Your task to perform on an android device: snooze an email in the gmail app Image 0: 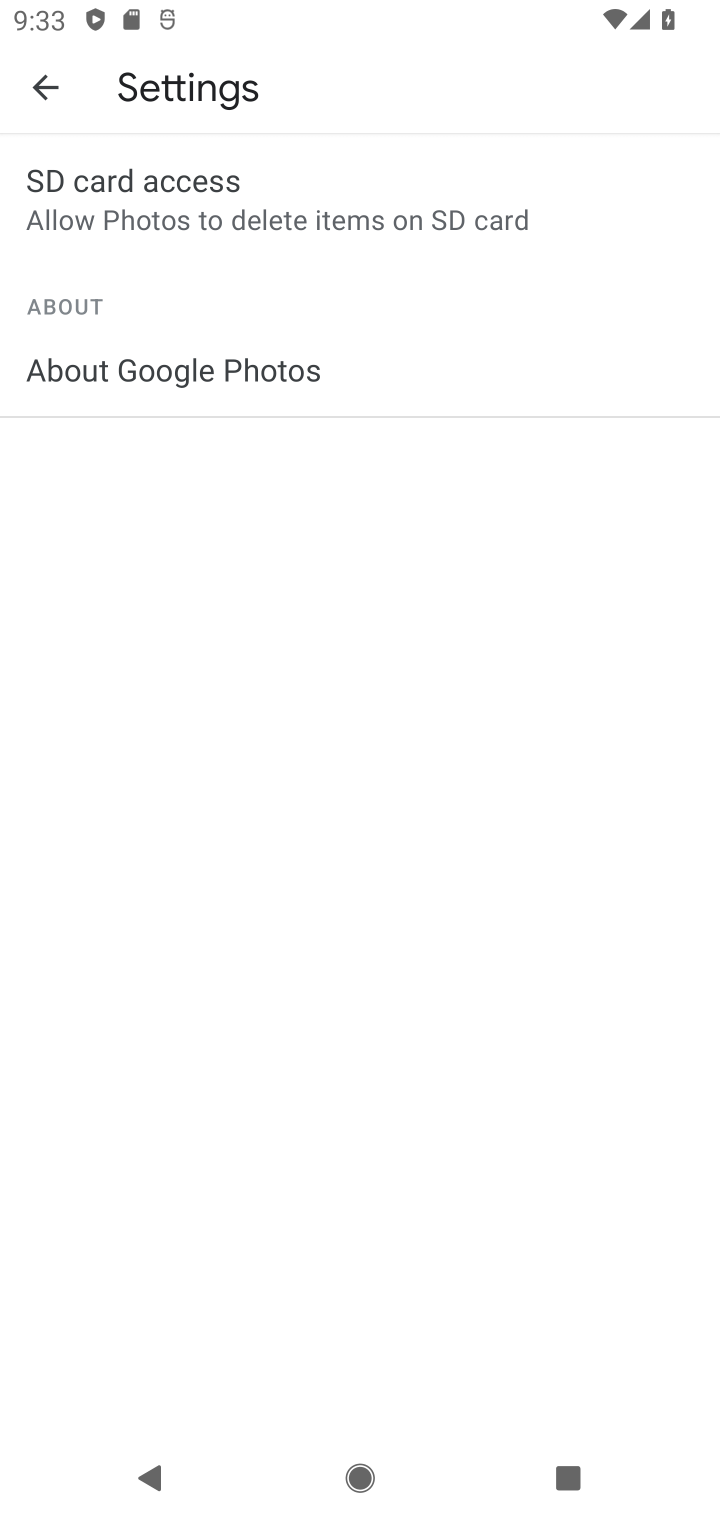
Step 0: press home button
Your task to perform on an android device: snooze an email in the gmail app Image 1: 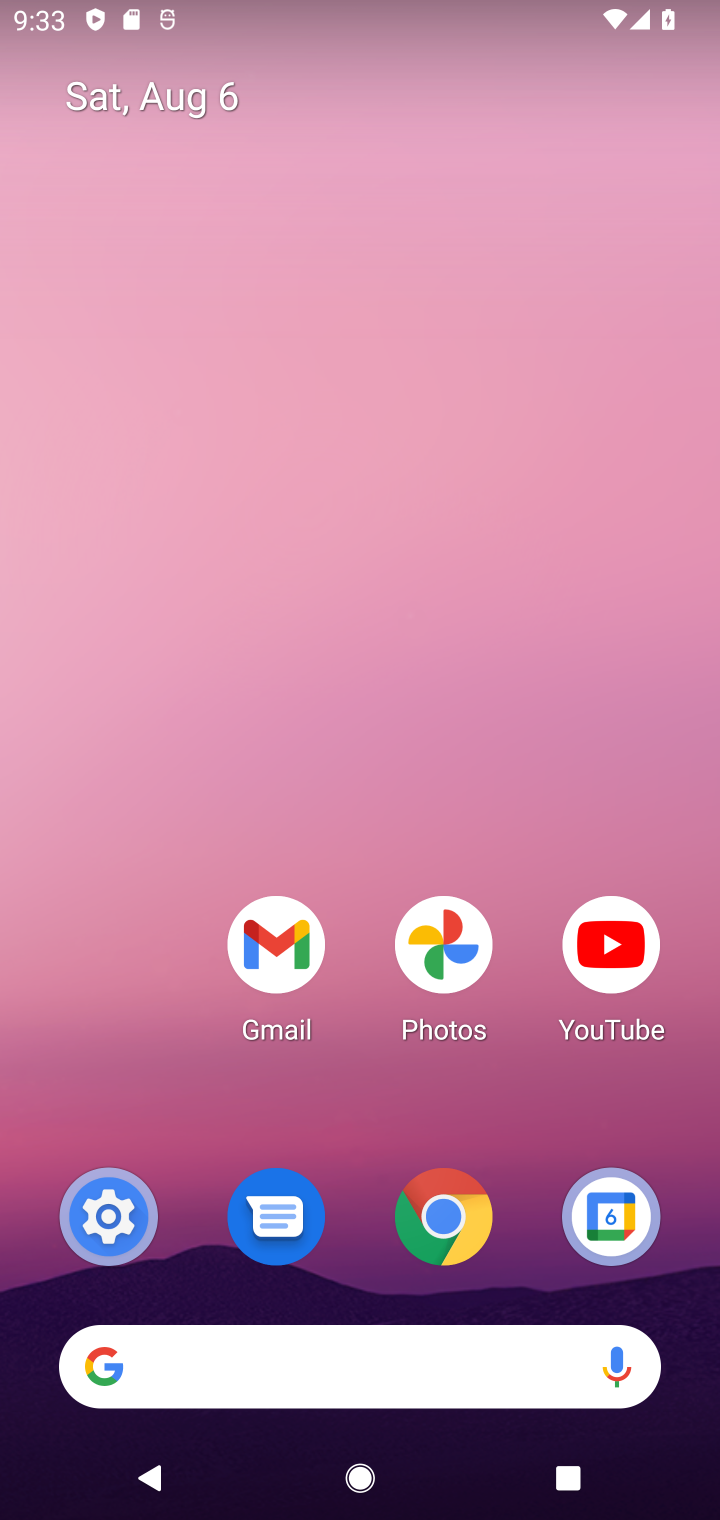
Step 1: click (409, 112)
Your task to perform on an android device: snooze an email in the gmail app Image 2: 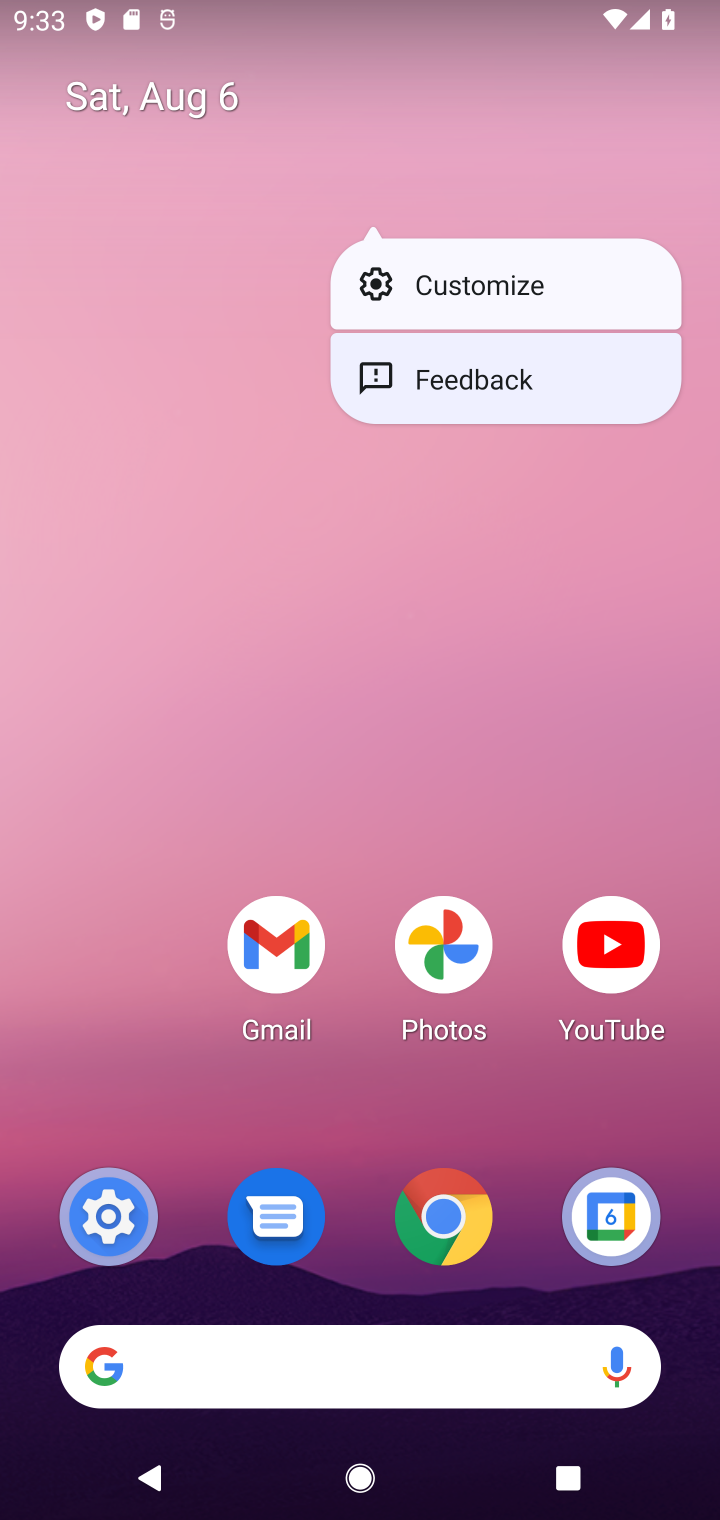
Step 2: drag from (293, 1240) to (300, 301)
Your task to perform on an android device: snooze an email in the gmail app Image 3: 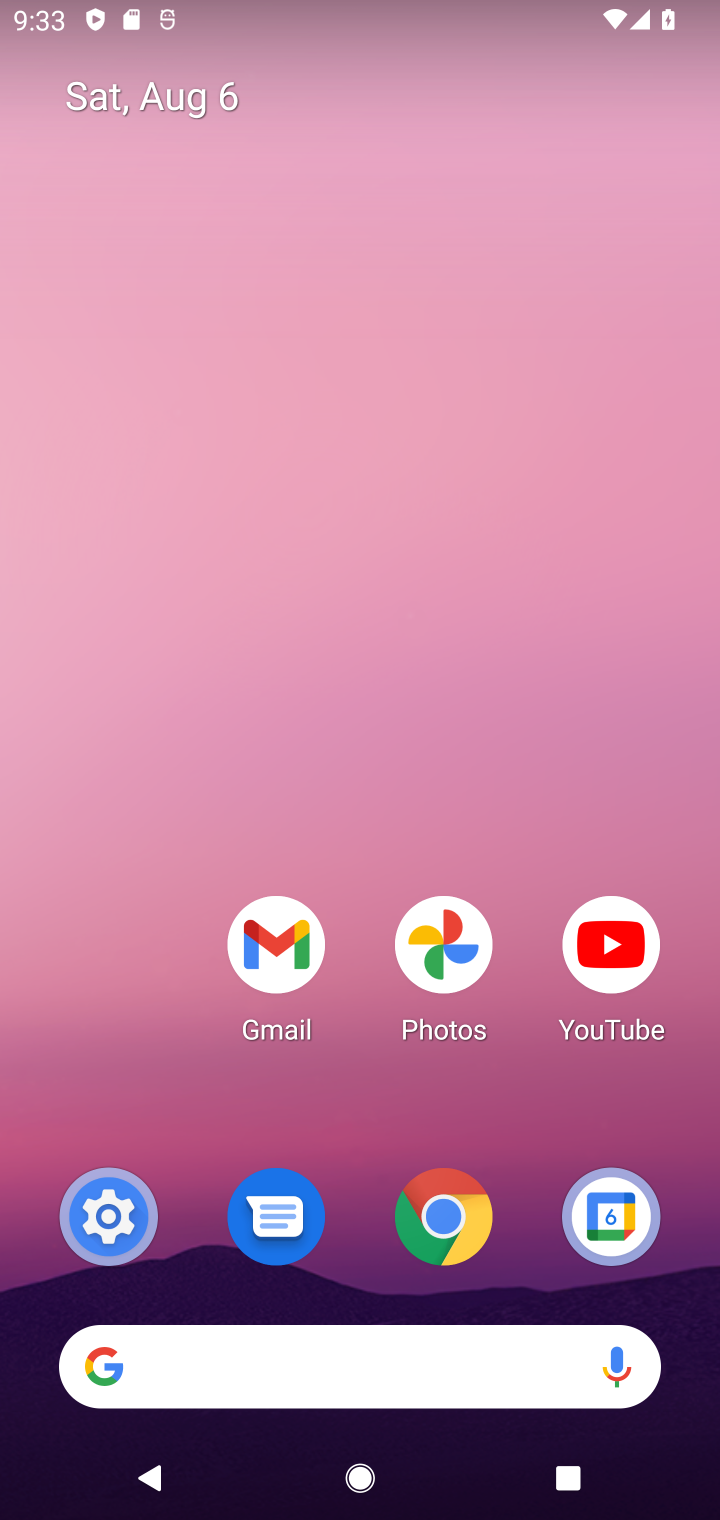
Step 3: drag from (400, 1114) to (340, 425)
Your task to perform on an android device: snooze an email in the gmail app Image 4: 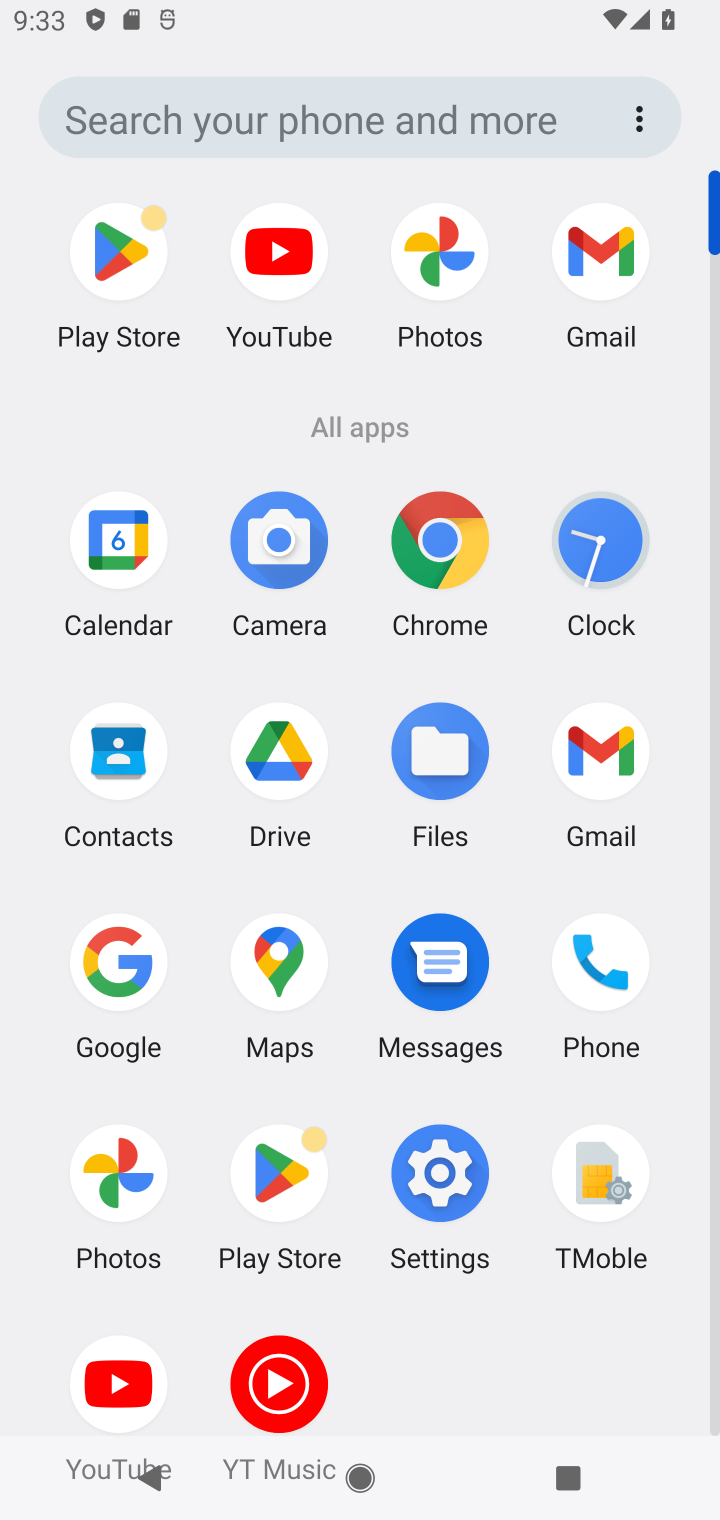
Step 4: click (583, 746)
Your task to perform on an android device: snooze an email in the gmail app Image 5: 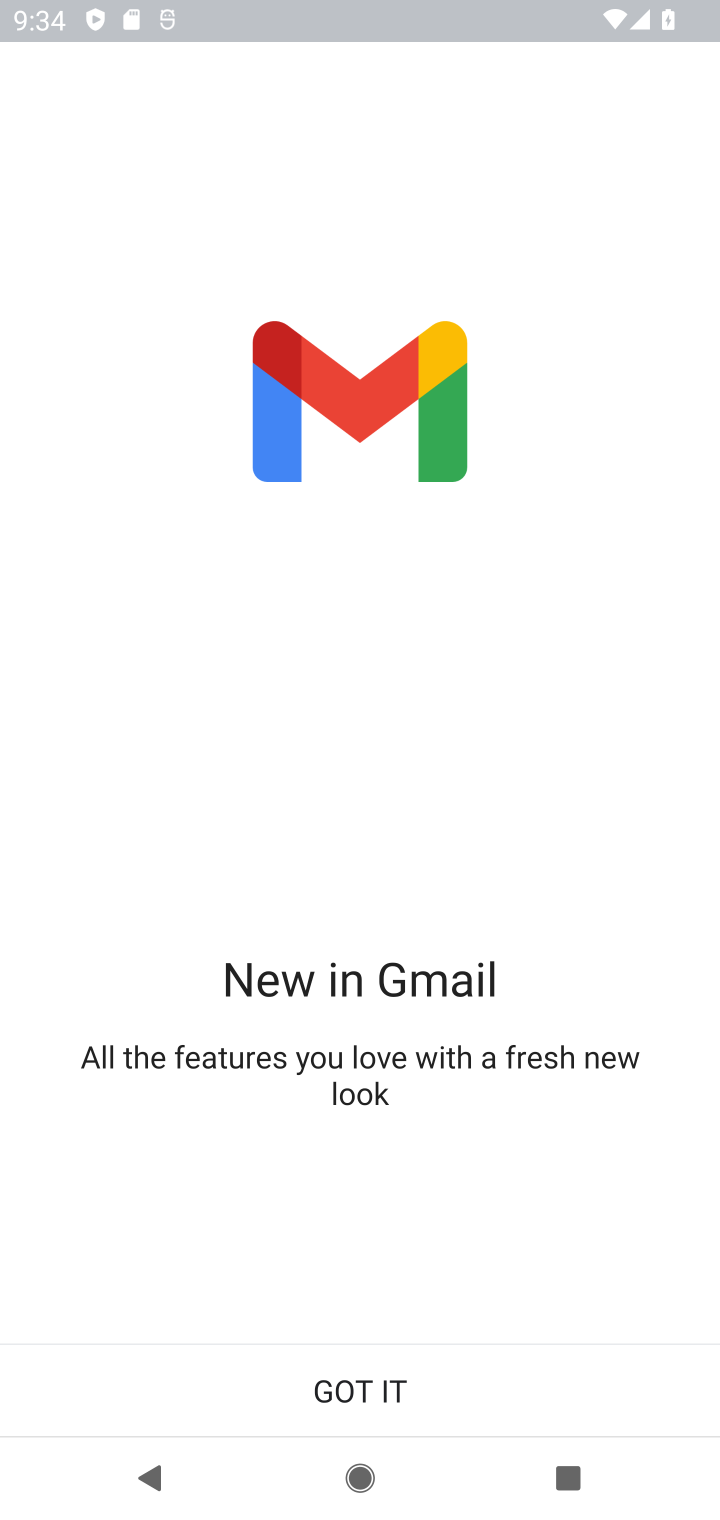
Step 5: click (350, 1384)
Your task to perform on an android device: snooze an email in the gmail app Image 6: 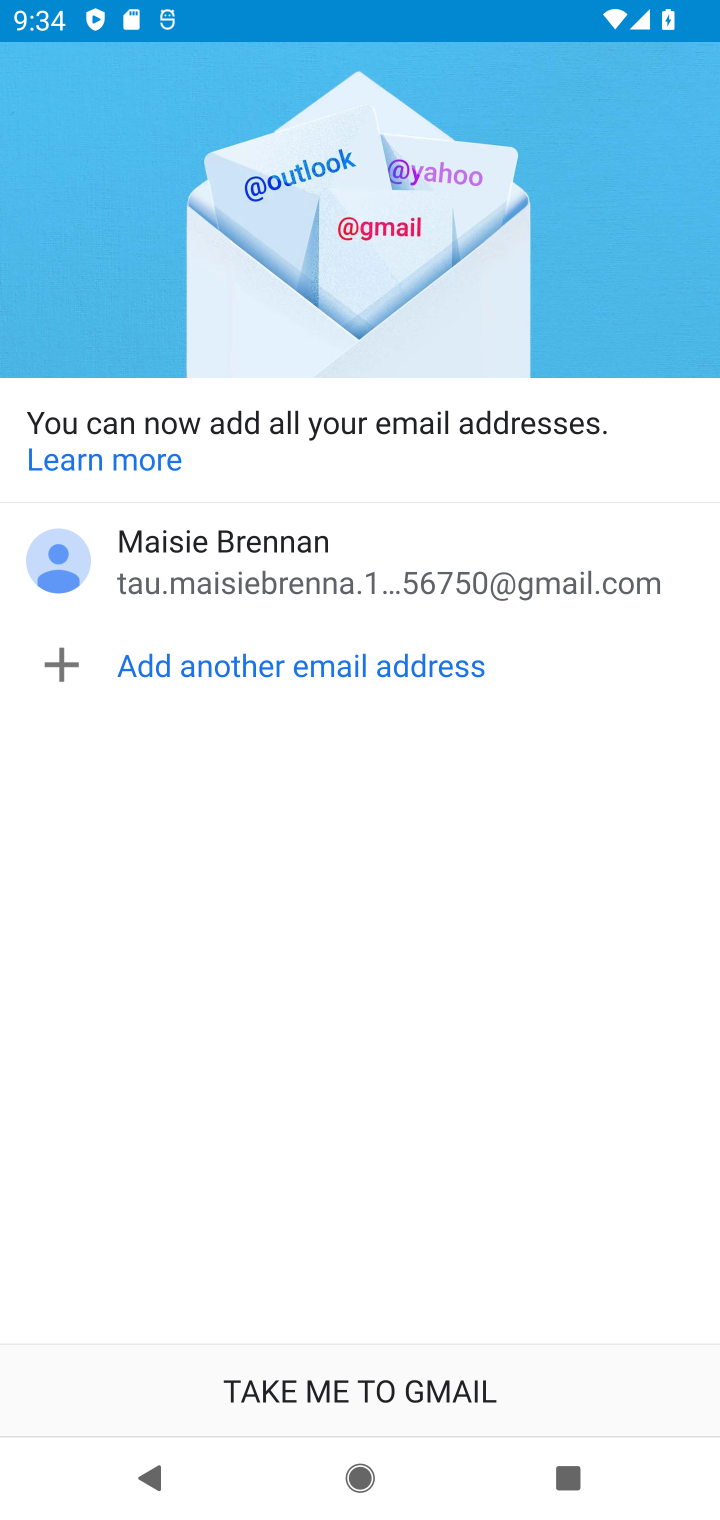
Step 6: click (350, 1384)
Your task to perform on an android device: snooze an email in the gmail app Image 7: 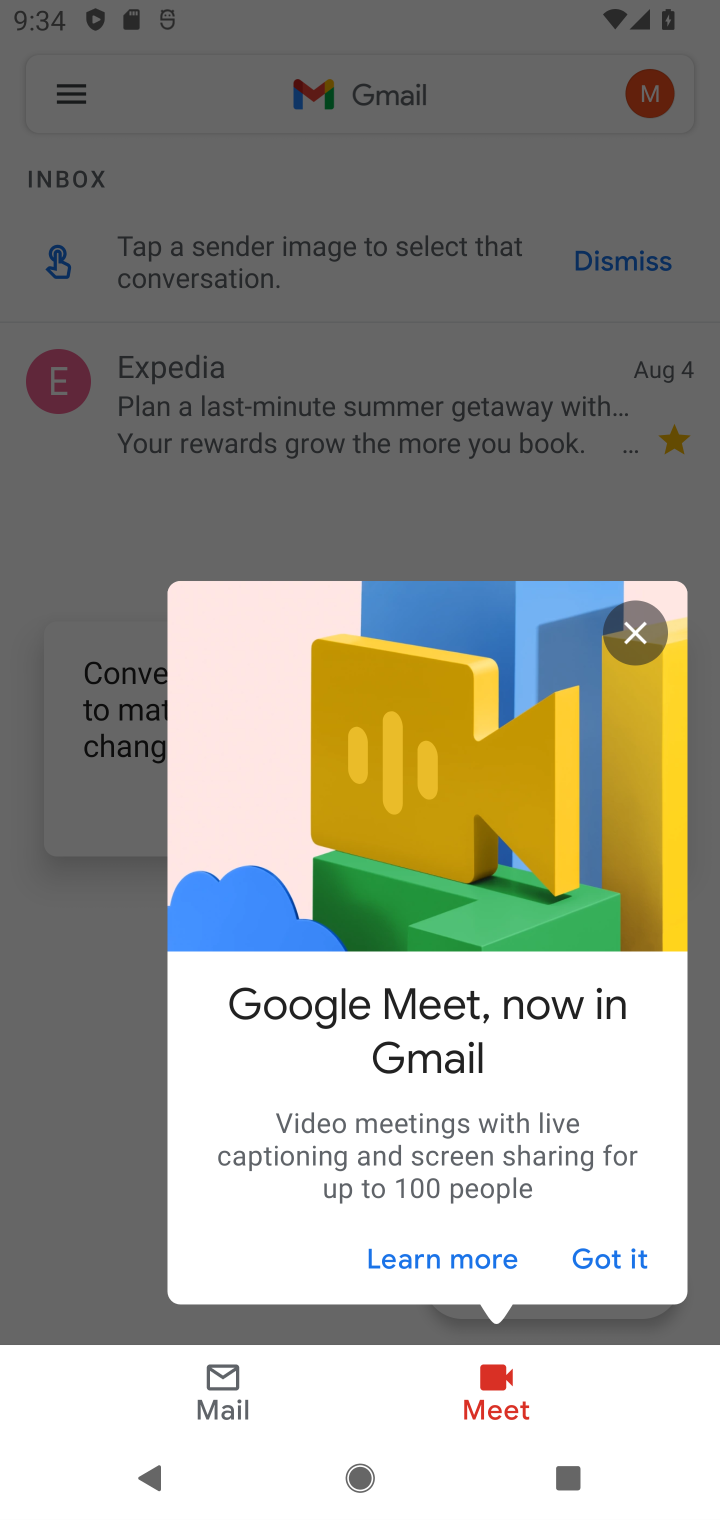
Step 7: click (560, 815)
Your task to perform on an android device: snooze an email in the gmail app Image 8: 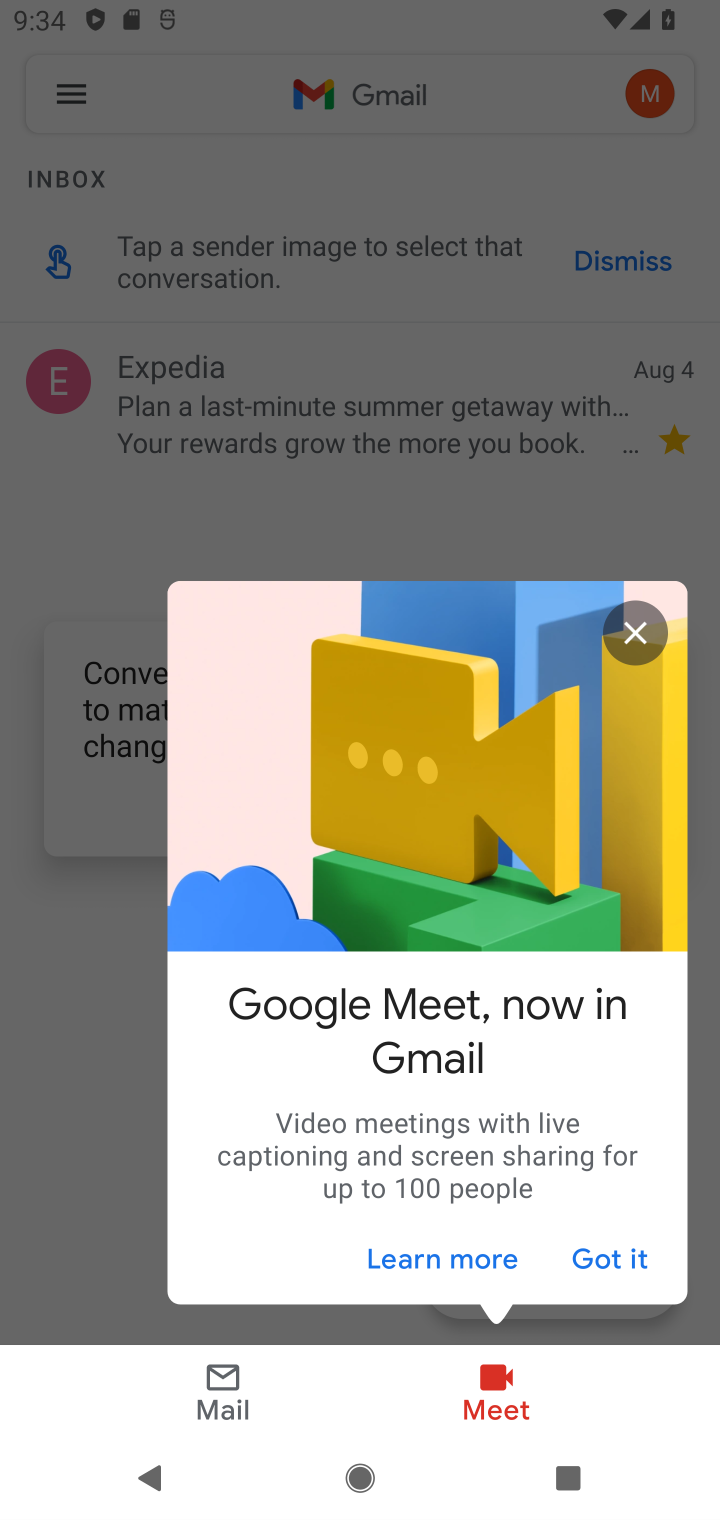
Step 8: click (623, 633)
Your task to perform on an android device: snooze an email in the gmail app Image 9: 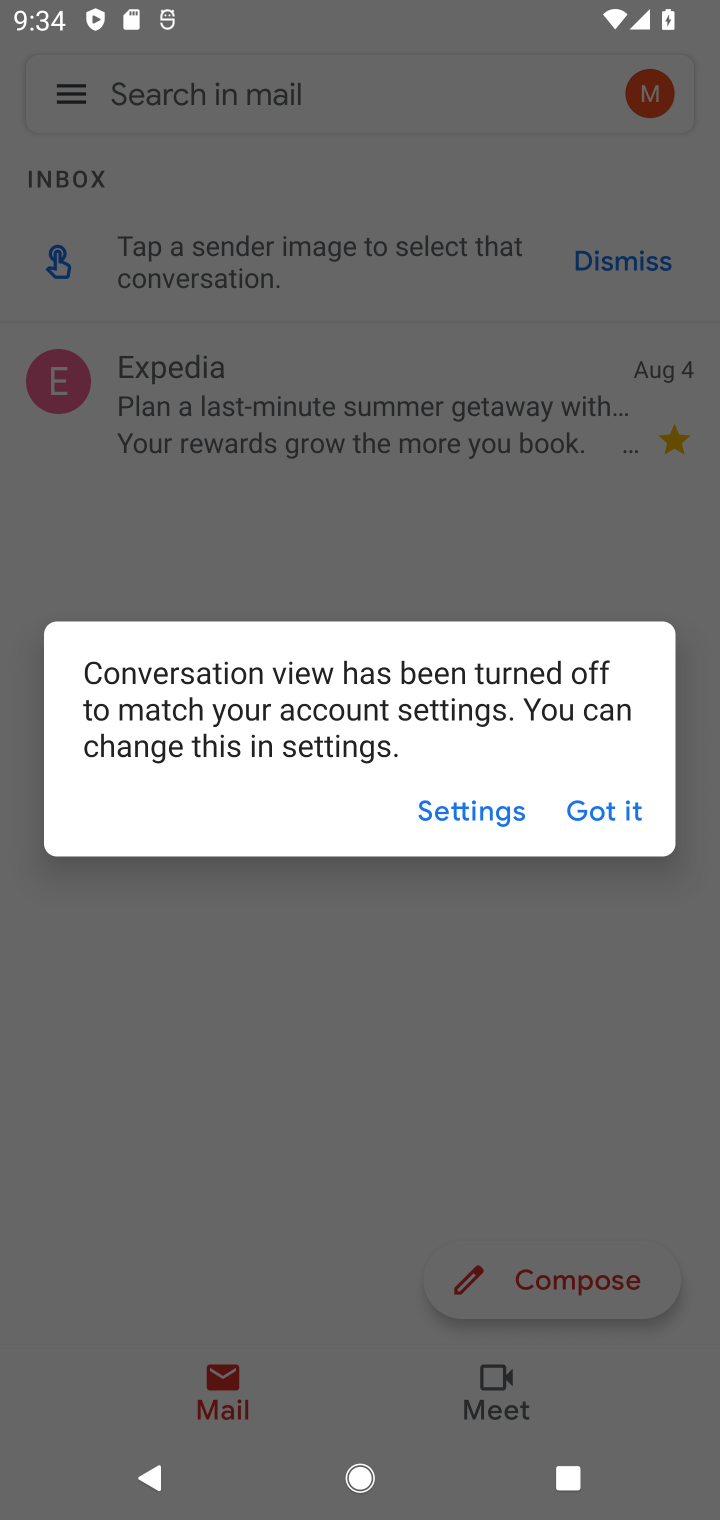
Step 9: click (597, 798)
Your task to perform on an android device: snooze an email in the gmail app Image 10: 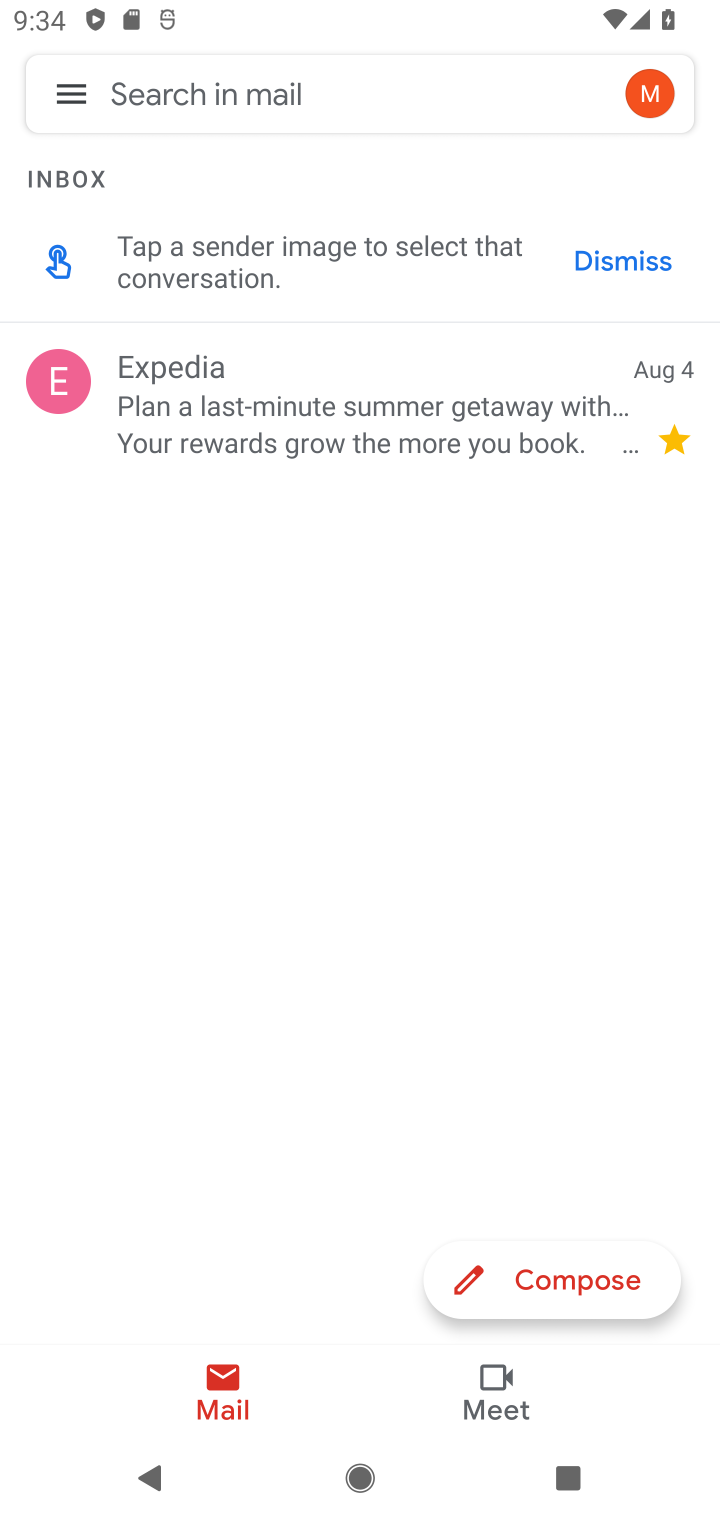
Step 10: click (62, 92)
Your task to perform on an android device: snooze an email in the gmail app Image 11: 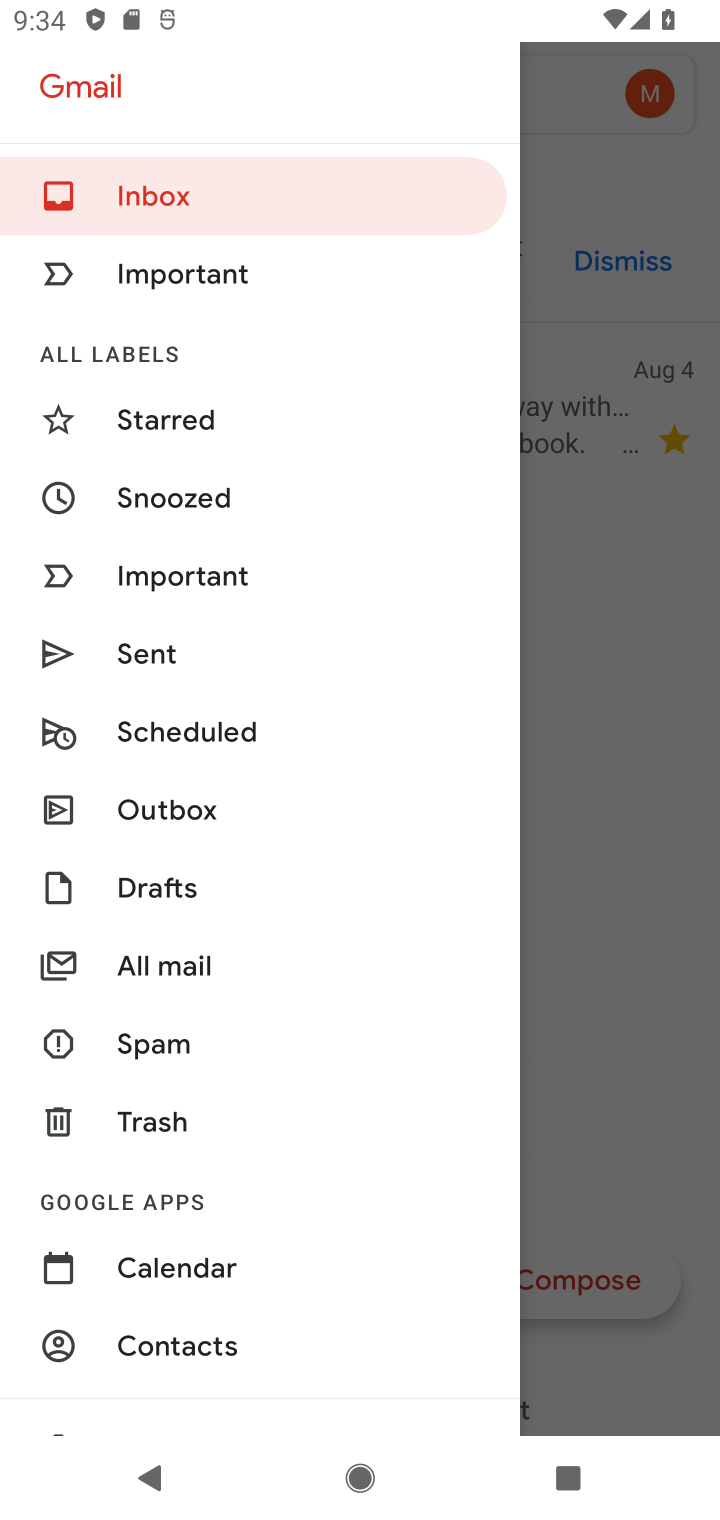
Step 11: click (132, 500)
Your task to perform on an android device: snooze an email in the gmail app Image 12: 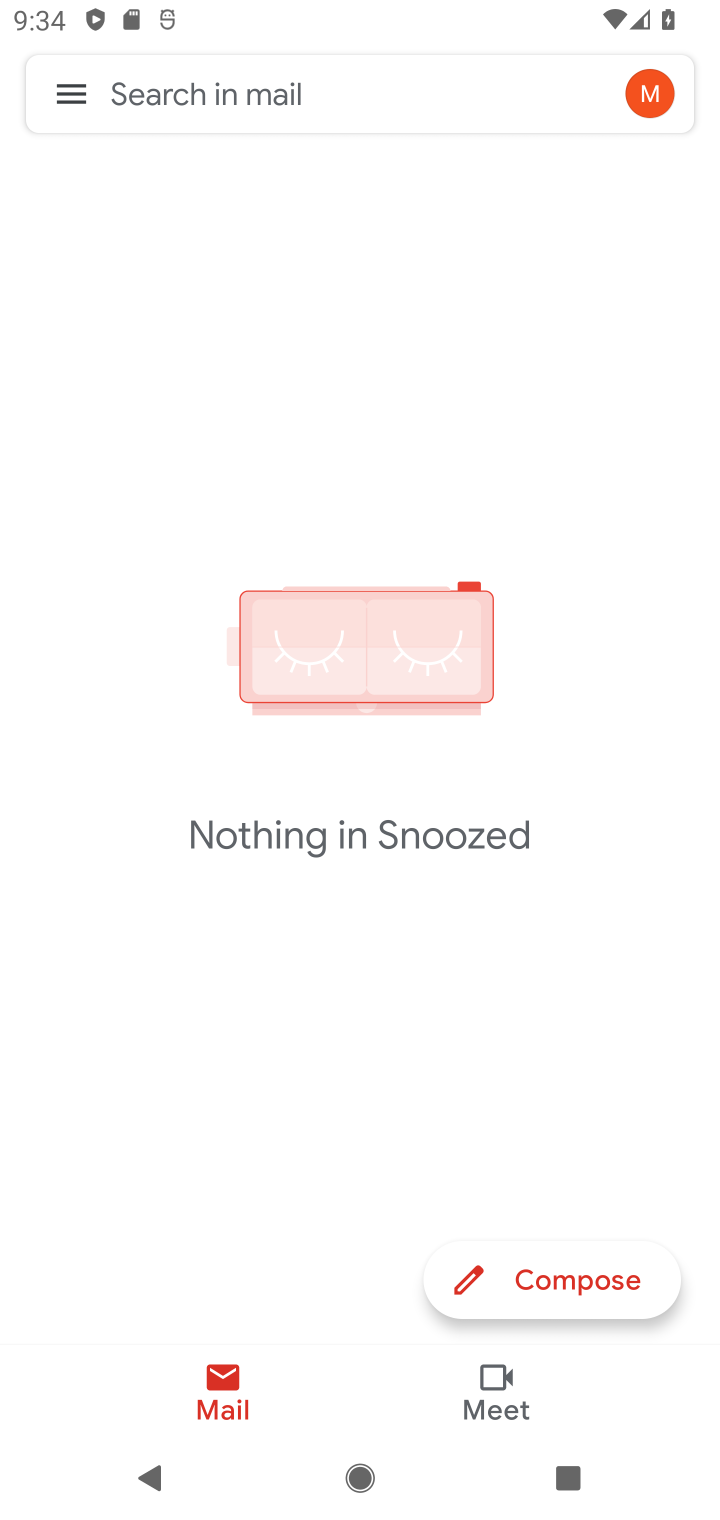
Step 12: task complete